Your task to perform on an android device: Do I have any events today? Image 0: 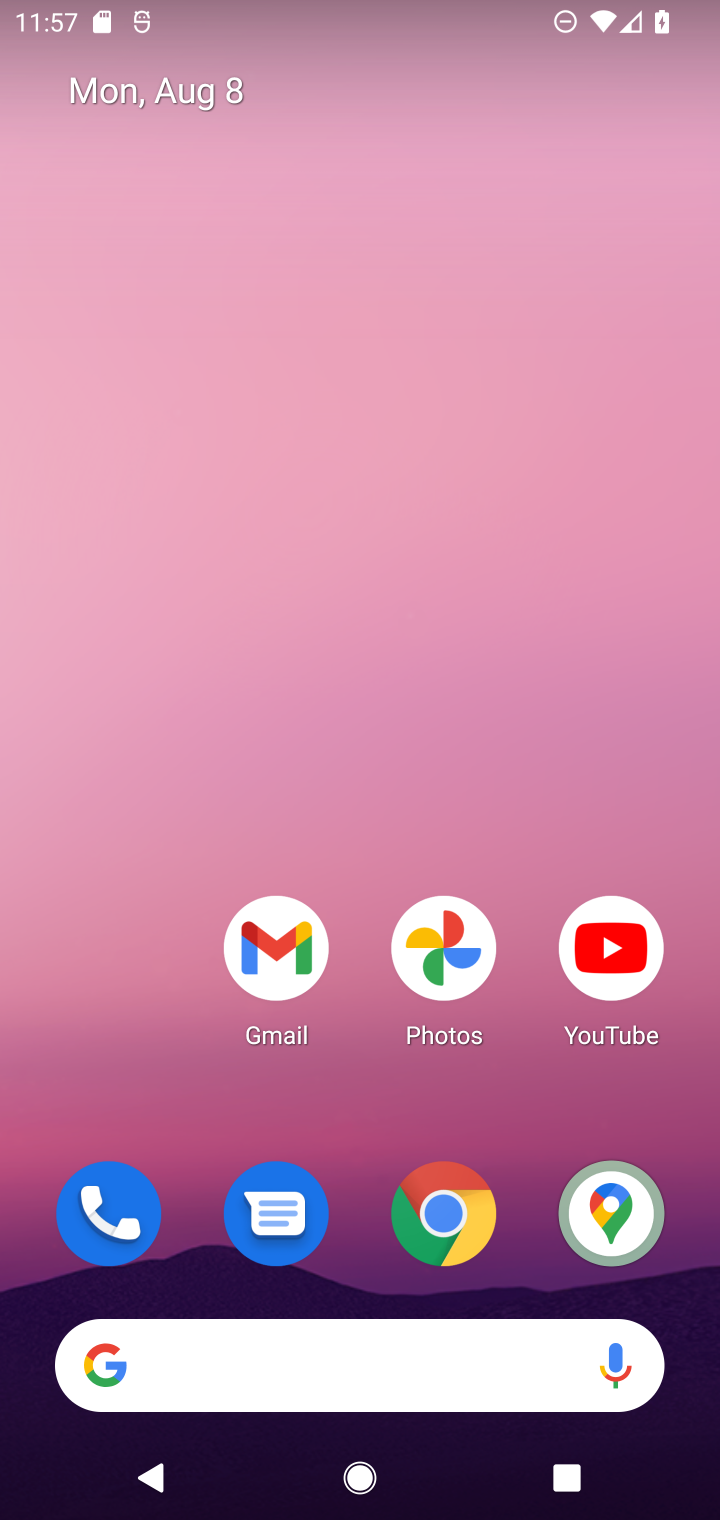
Step 0: press home button
Your task to perform on an android device: Do I have any events today? Image 1: 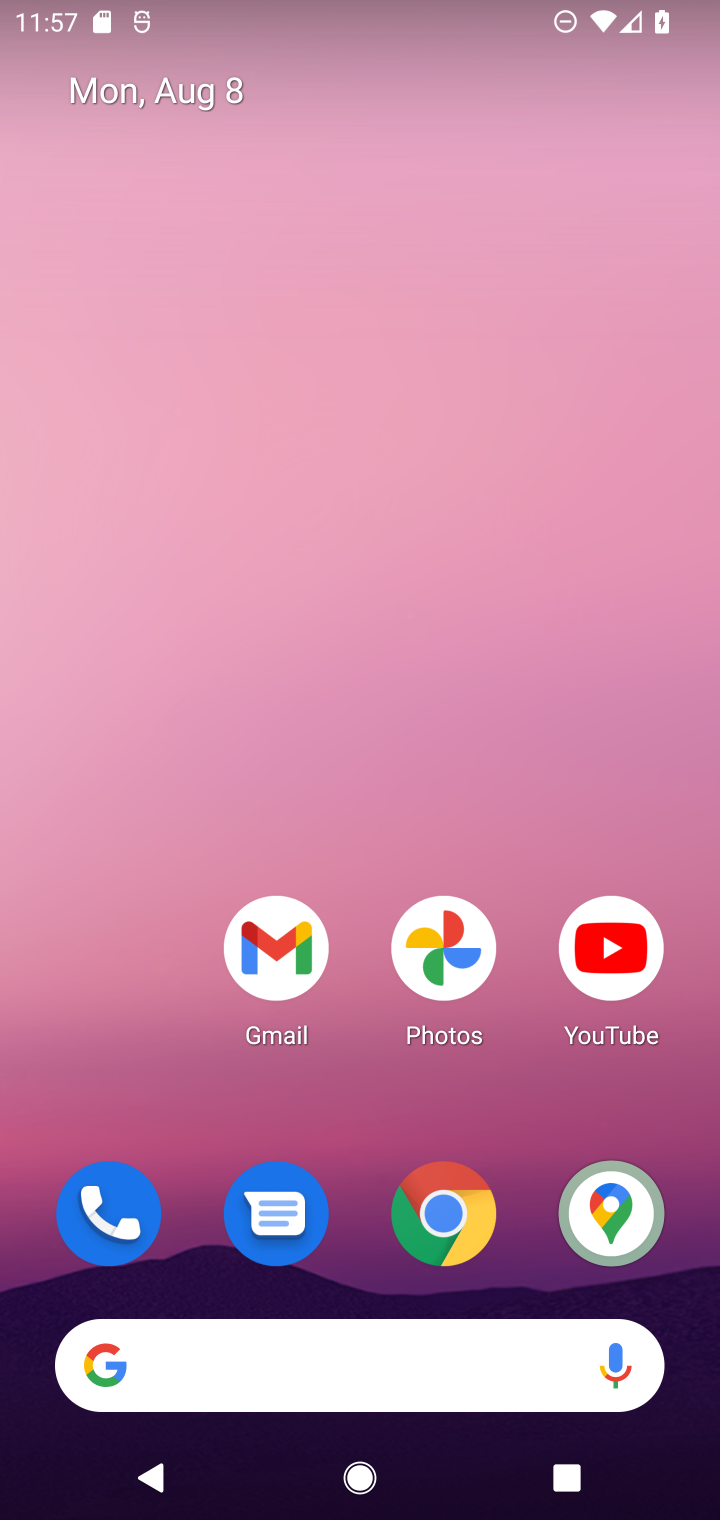
Step 1: drag from (370, 1169) to (344, 168)
Your task to perform on an android device: Do I have any events today? Image 2: 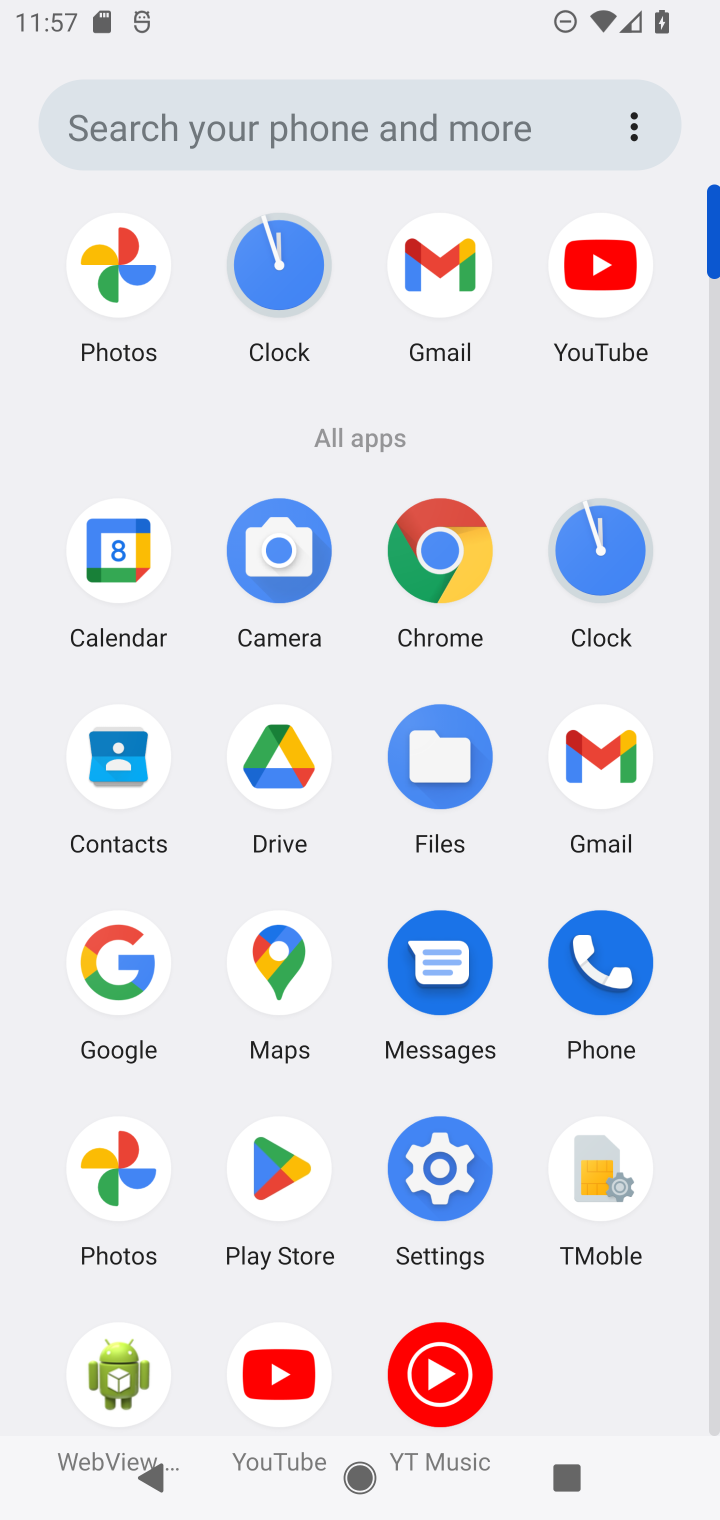
Step 2: click (110, 536)
Your task to perform on an android device: Do I have any events today? Image 3: 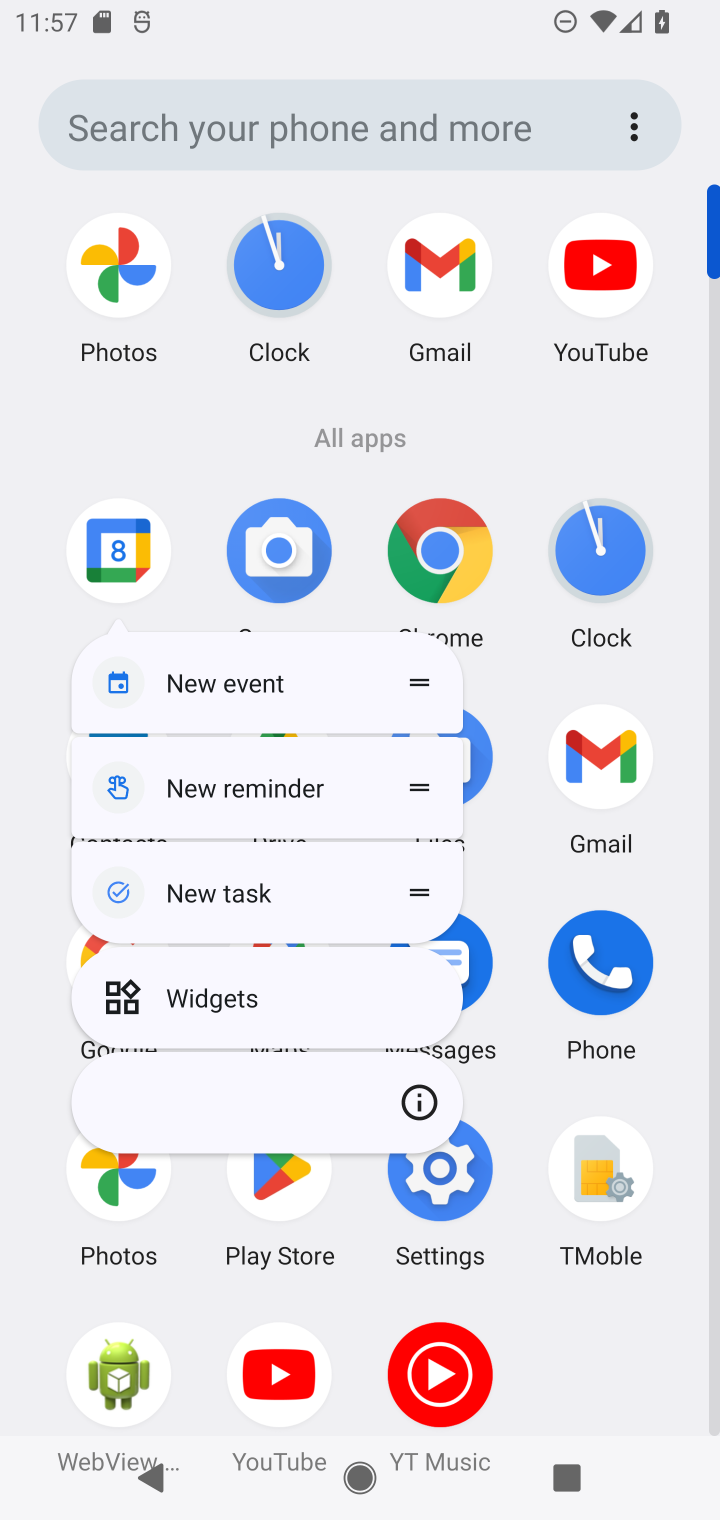
Step 3: click (122, 533)
Your task to perform on an android device: Do I have any events today? Image 4: 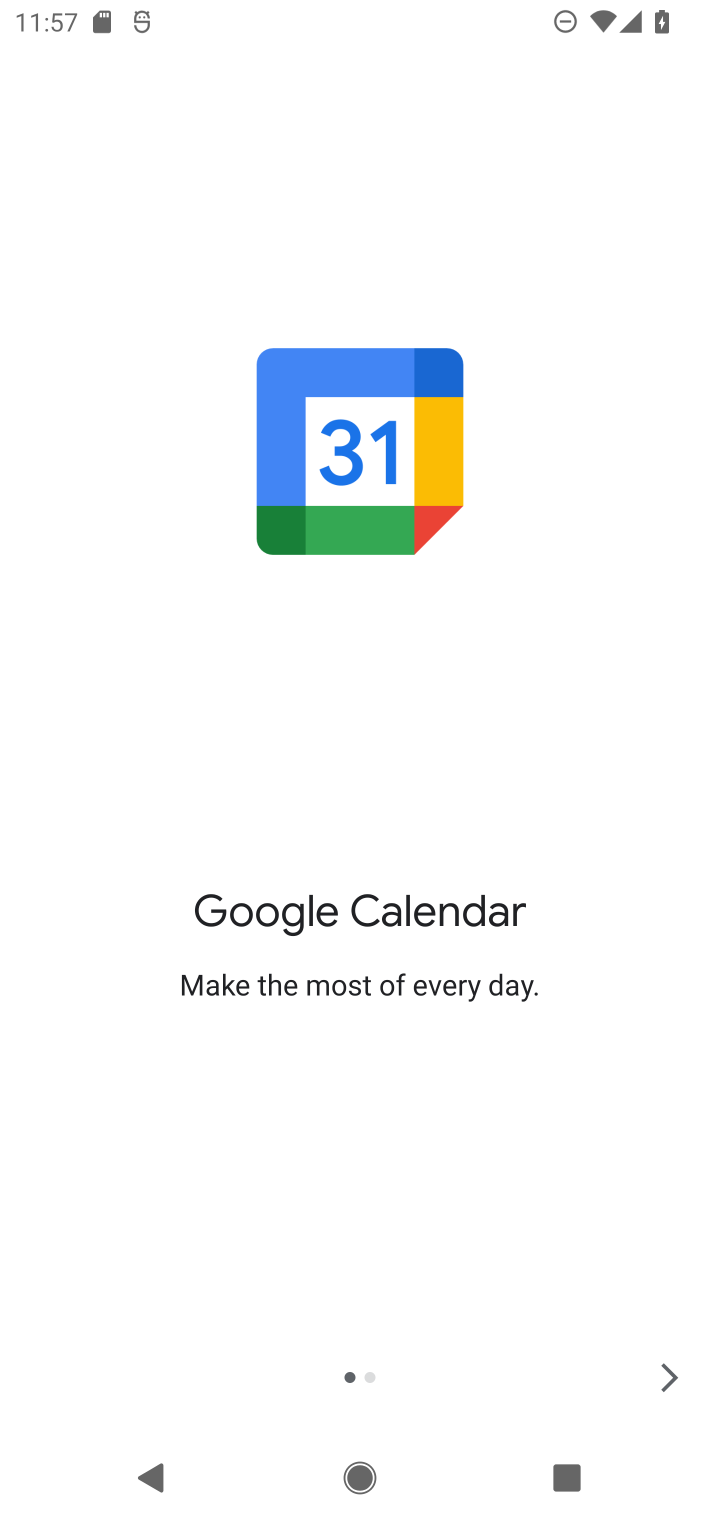
Step 4: click (668, 1371)
Your task to perform on an android device: Do I have any events today? Image 5: 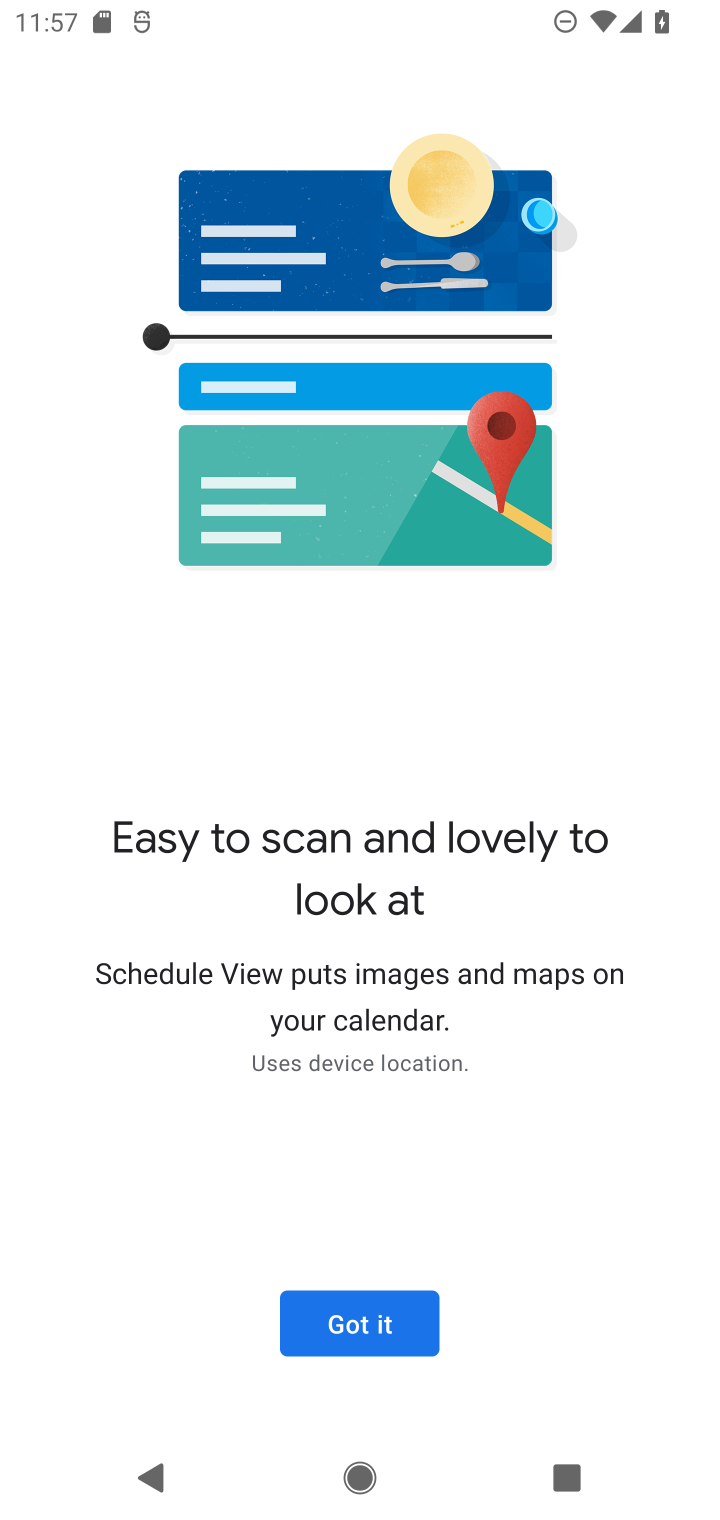
Step 5: click (357, 1320)
Your task to perform on an android device: Do I have any events today? Image 6: 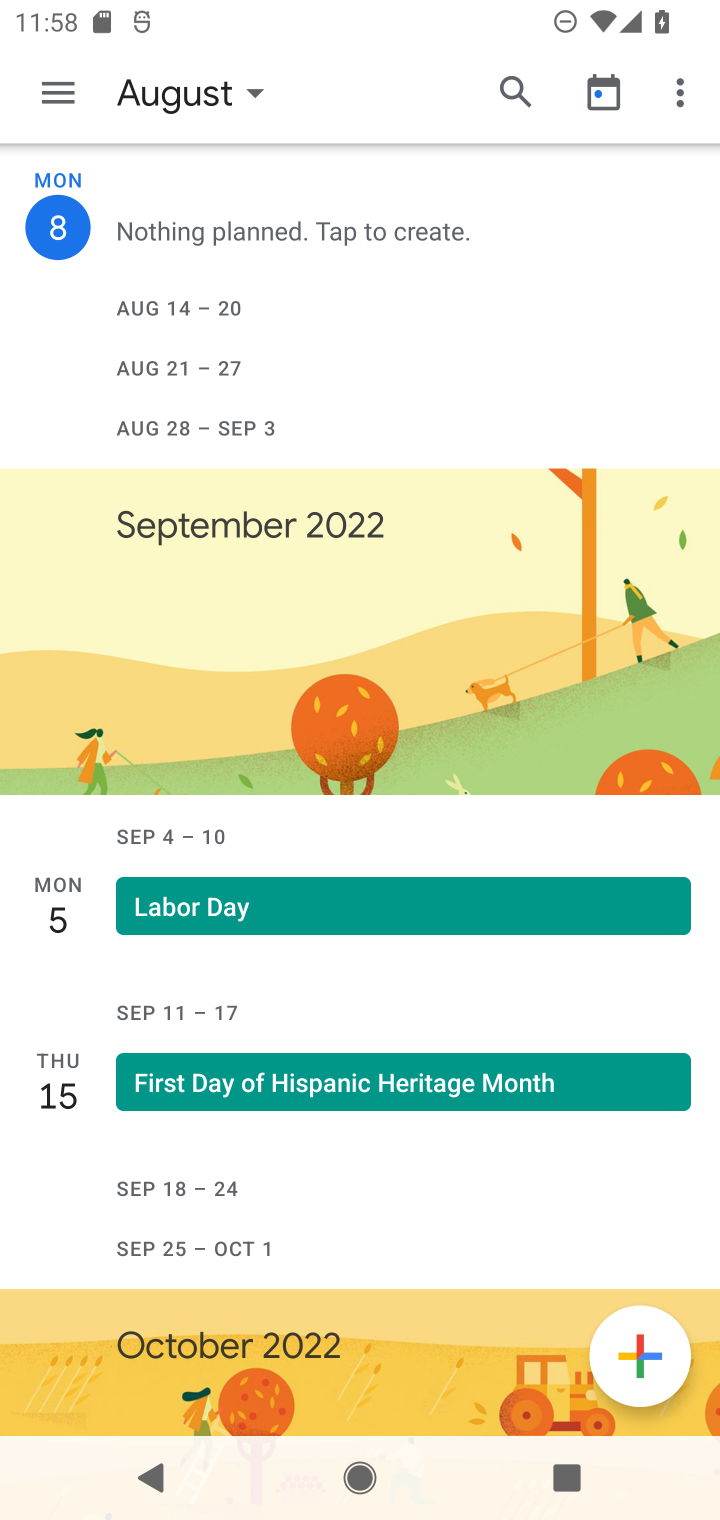
Step 6: click (61, 63)
Your task to perform on an android device: Do I have any events today? Image 7: 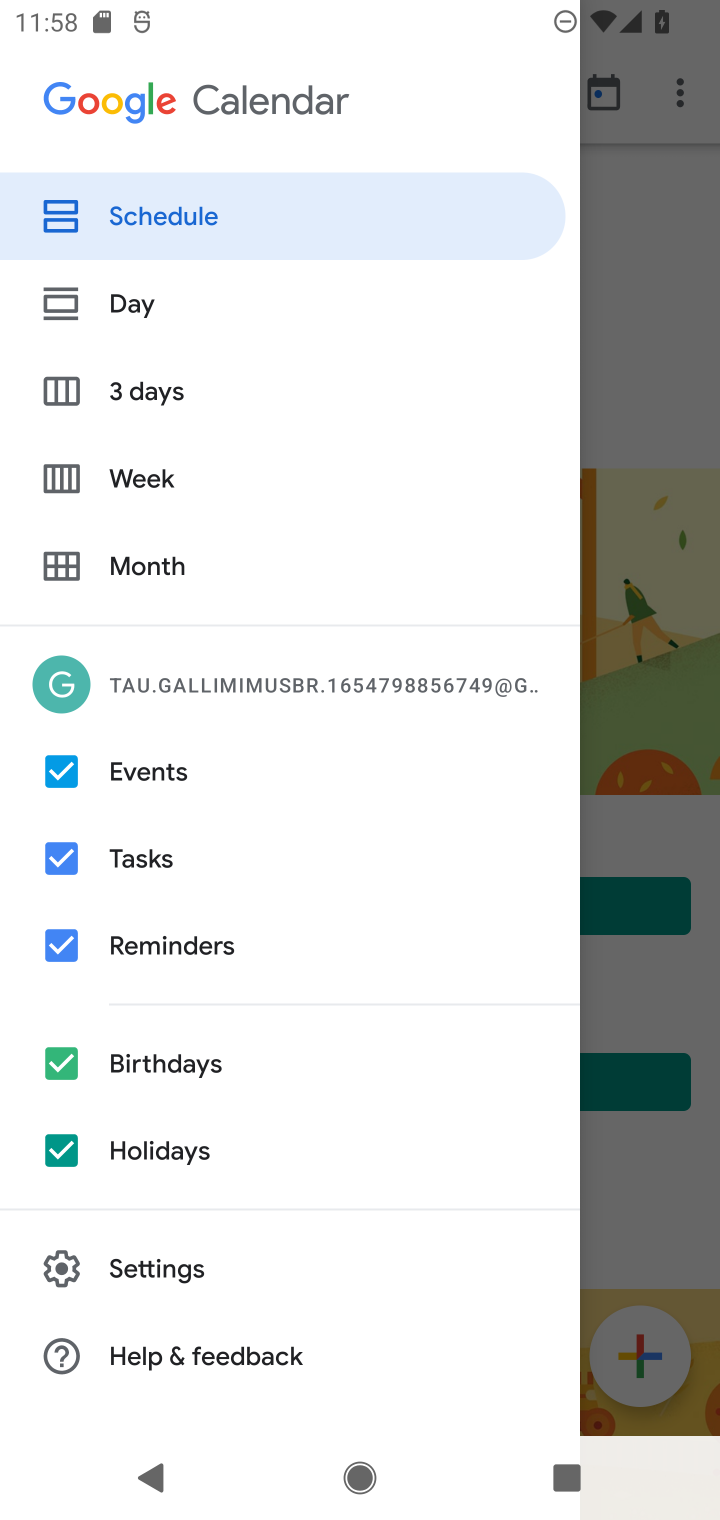
Step 7: click (50, 867)
Your task to perform on an android device: Do I have any events today? Image 8: 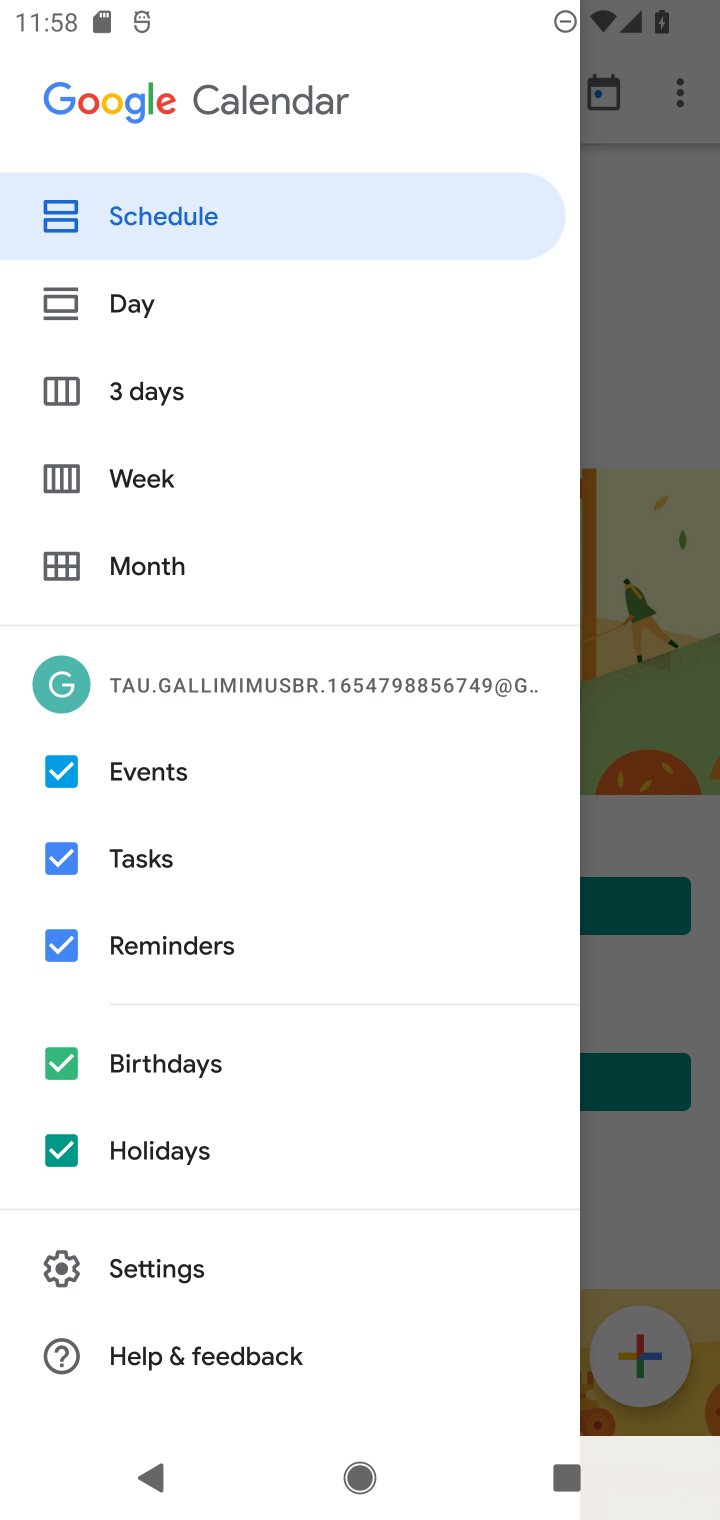
Step 8: click (65, 931)
Your task to perform on an android device: Do I have any events today? Image 9: 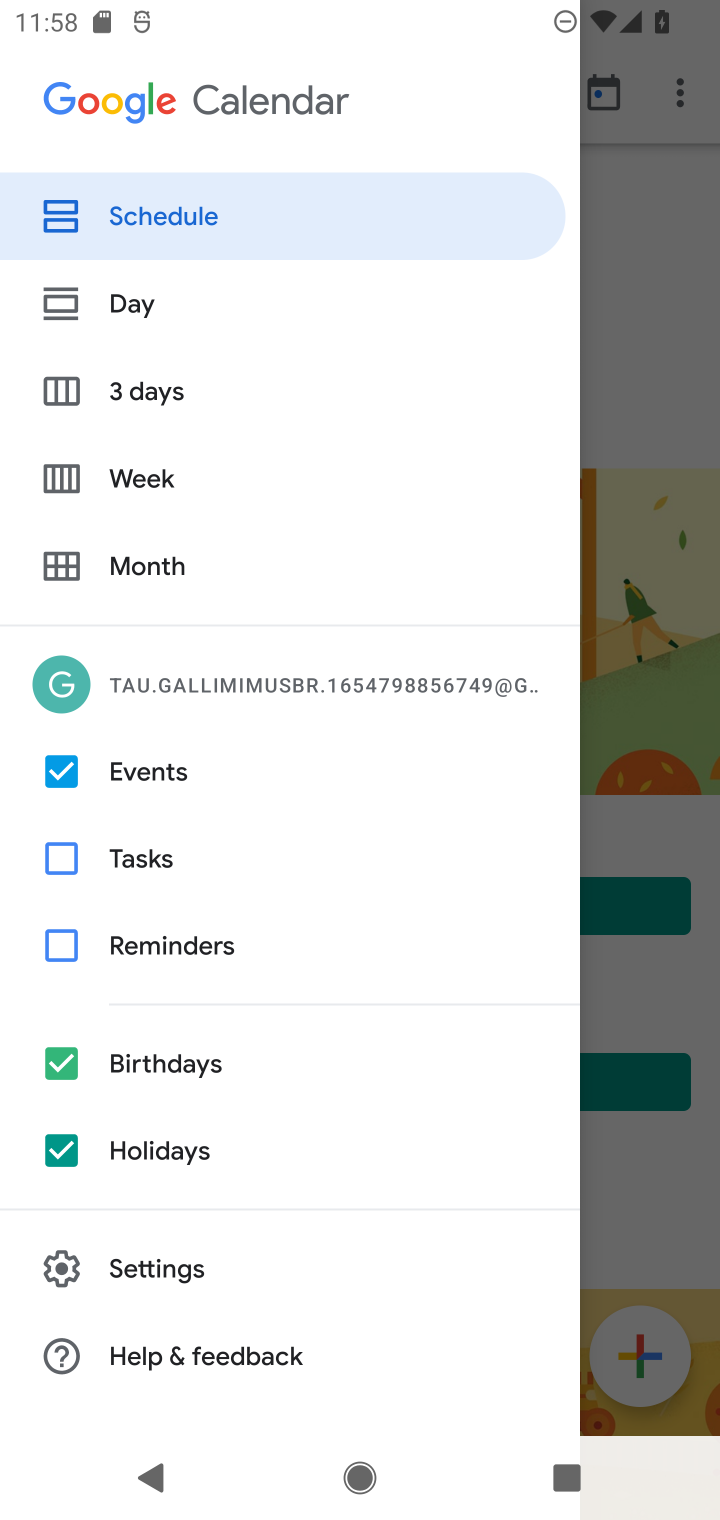
Step 9: click (64, 1055)
Your task to perform on an android device: Do I have any events today? Image 10: 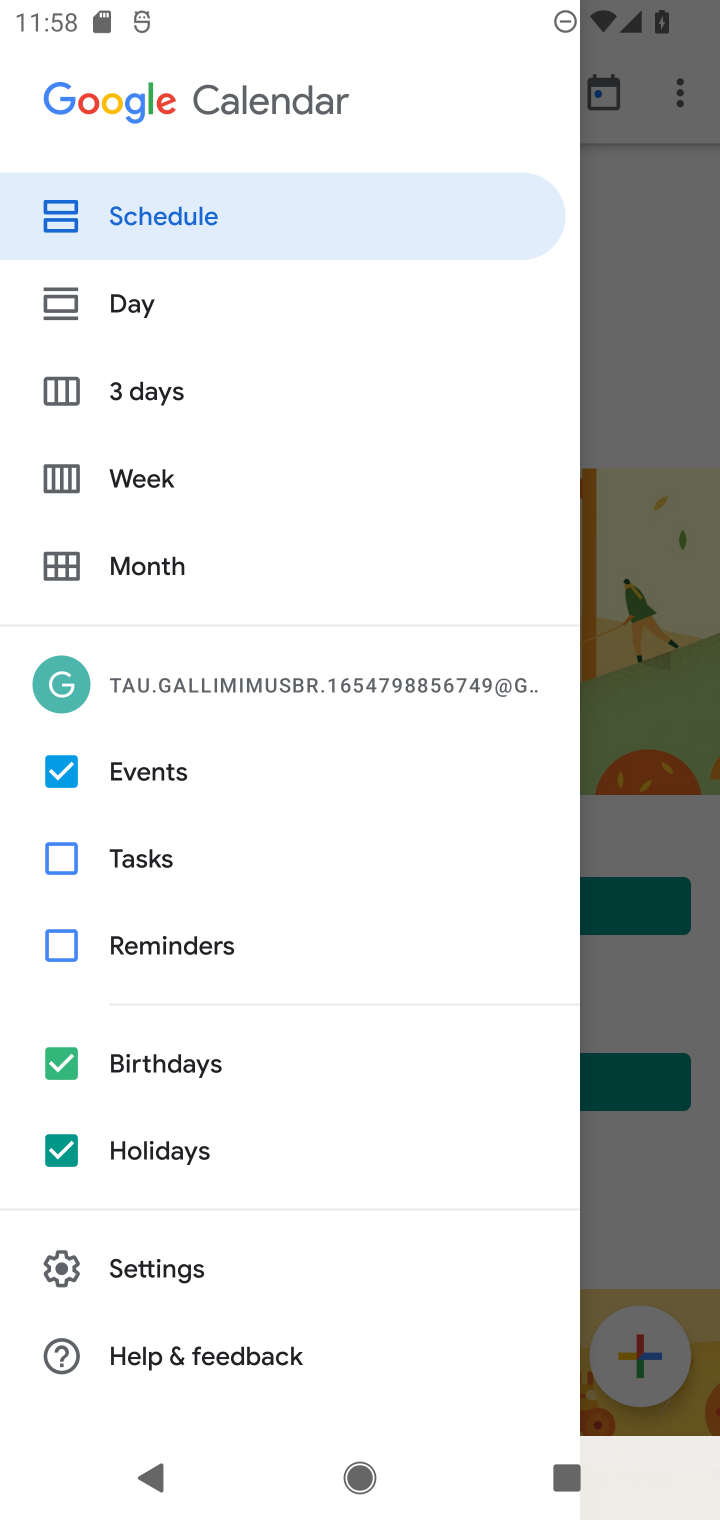
Step 10: click (60, 1138)
Your task to perform on an android device: Do I have any events today? Image 11: 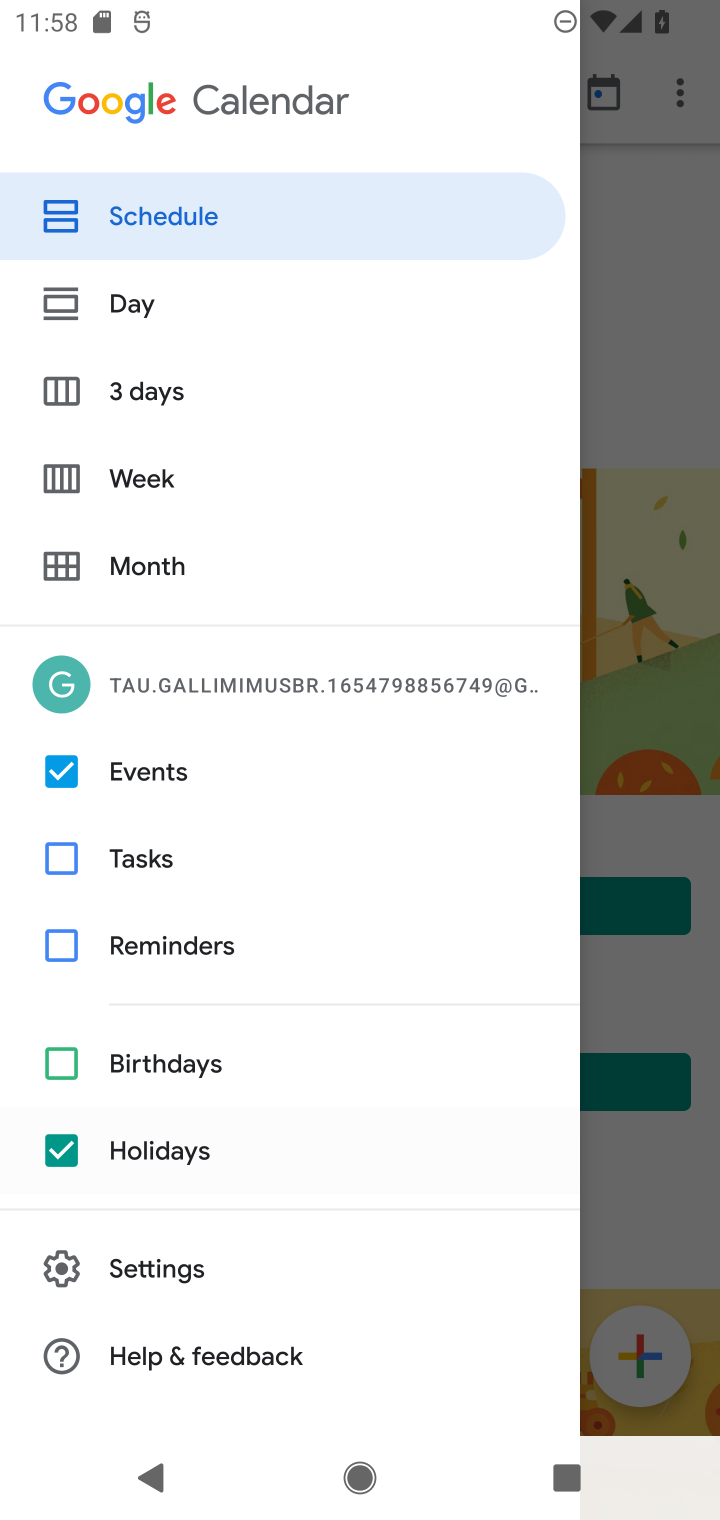
Step 11: click (68, 300)
Your task to perform on an android device: Do I have any events today? Image 12: 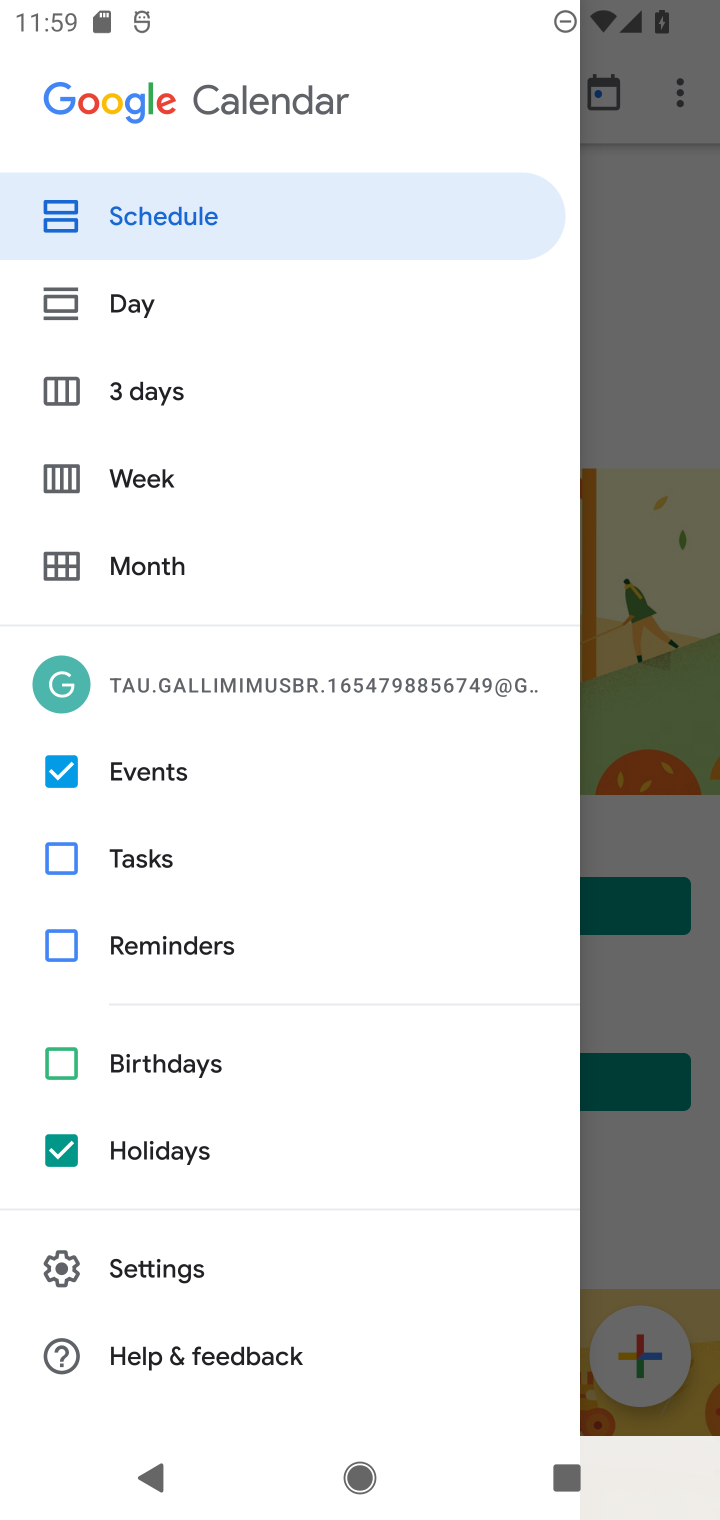
Step 12: click (112, 294)
Your task to perform on an android device: Do I have any events today? Image 13: 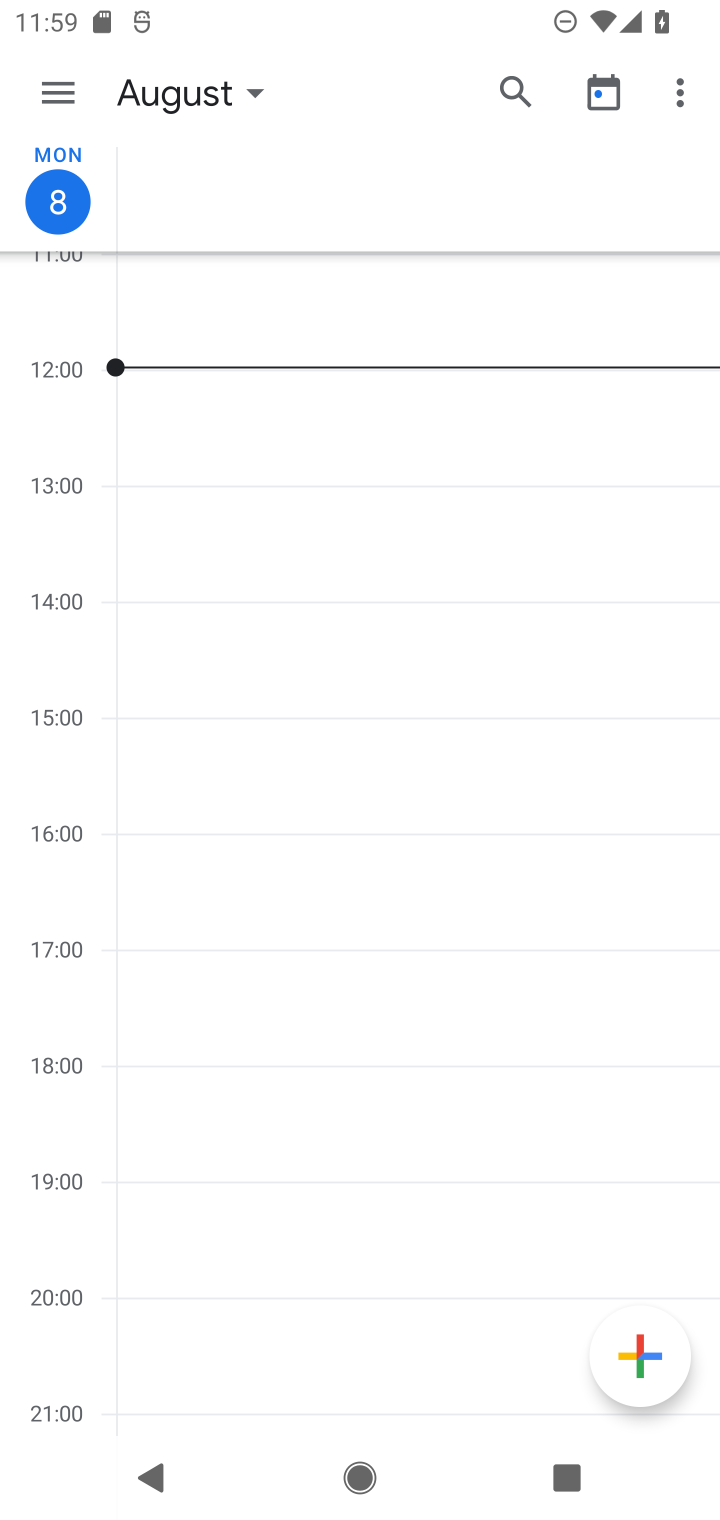
Step 13: task complete